Your task to perform on an android device: turn on the 12-hour format for clock Image 0: 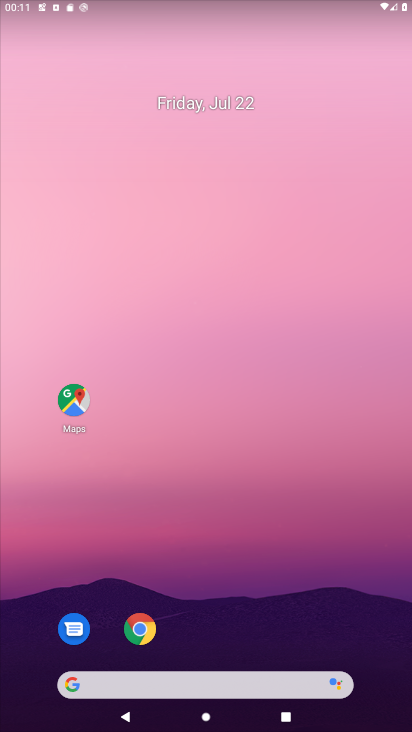
Step 0: drag from (283, 605) to (240, 77)
Your task to perform on an android device: turn on the 12-hour format for clock Image 1: 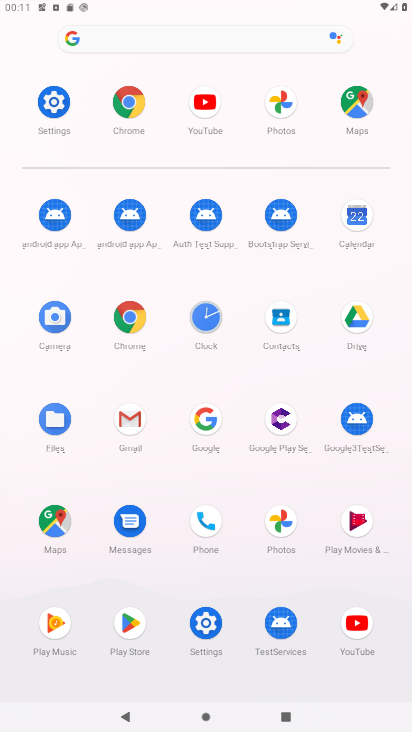
Step 1: click (201, 334)
Your task to perform on an android device: turn on the 12-hour format for clock Image 2: 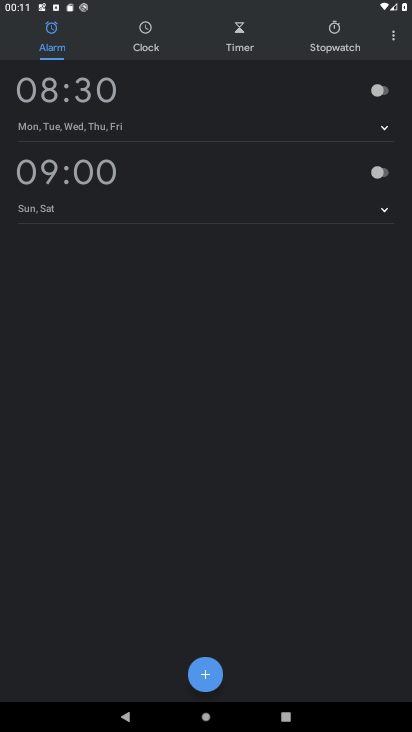
Step 2: click (392, 41)
Your task to perform on an android device: turn on the 12-hour format for clock Image 3: 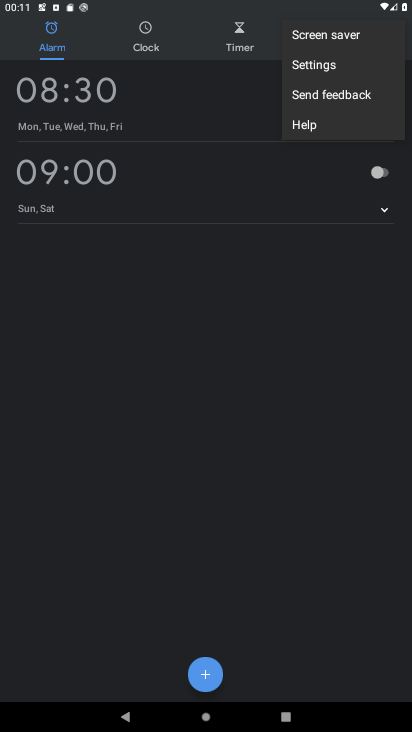
Step 3: click (335, 72)
Your task to perform on an android device: turn on the 12-hour format for clock Image 4: 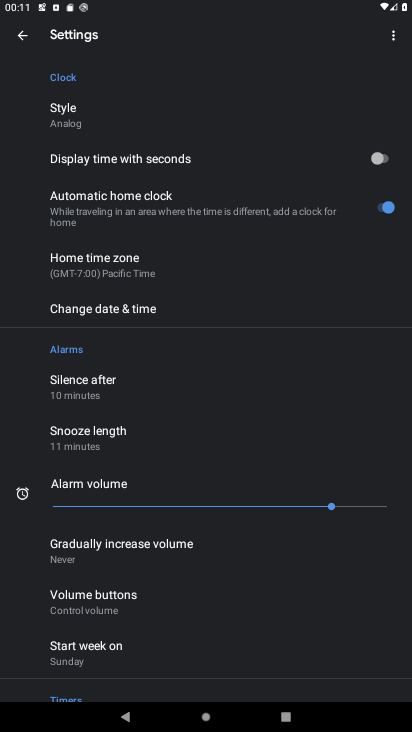
Step 4: click (125, 302)
Your task to perform on an android device: turn on the 12-hour format for clock Image 5: 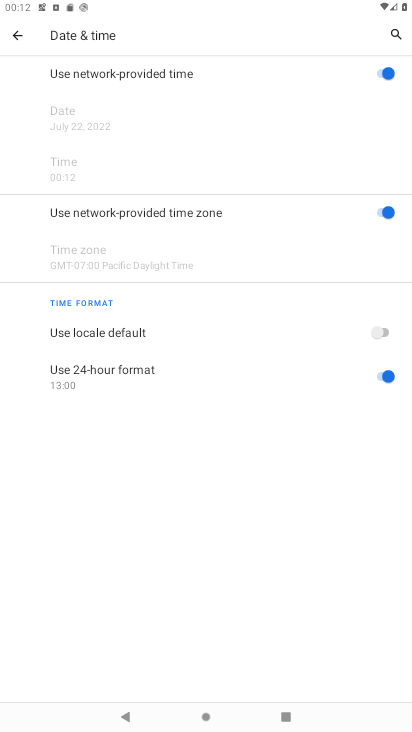
Step 5: click (382, 327)
Your task to perform on an android device: turn on the 12-hour format for clock Image 6: 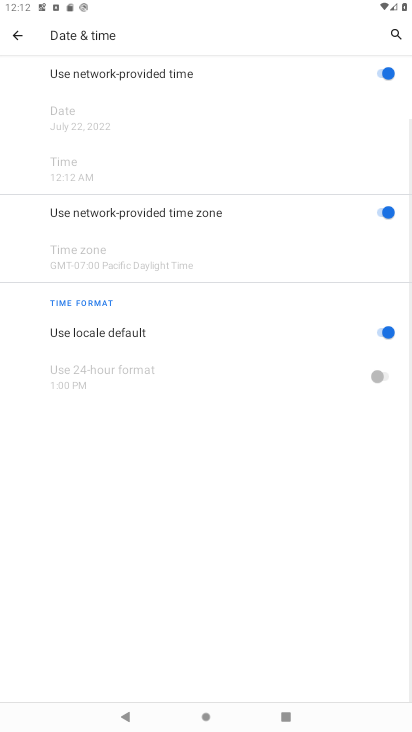
Step 6: task complete